Your task to perform on an android device: View the shopping cart on bestbuy. Add macbook pro 15 inch to the cart on bestbuy, then select checkout. Image 0: 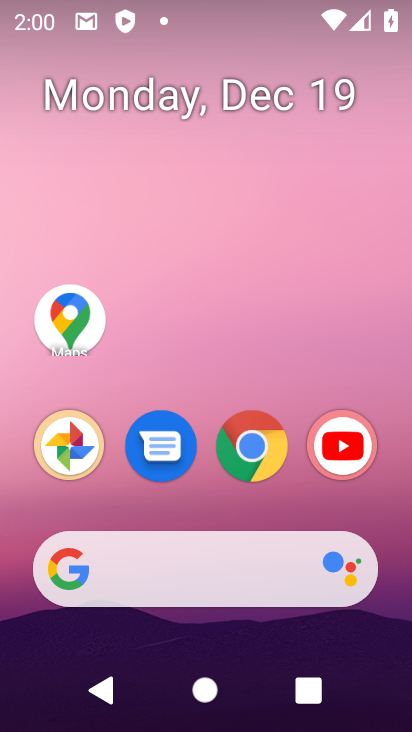
Step 0: click (241, 461)
Your task to perform on an android device: View the shopping cart on bestbuy. Add macbook pro 15 inch to the cart on bestbuy, then select checkout. Image 1: 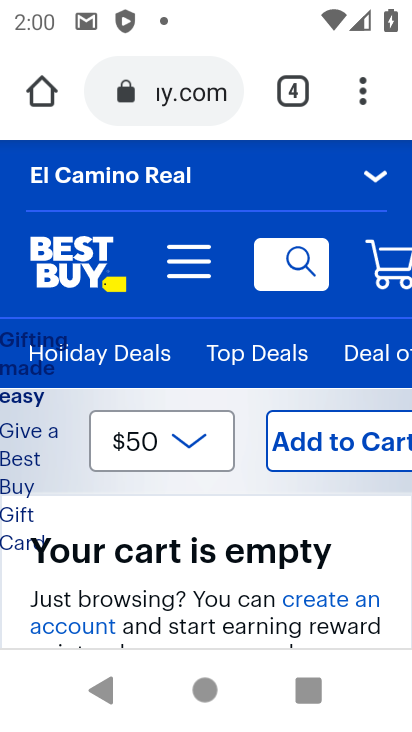
Step 1: click (278, 248)
Your task to perform on an android device: View the shopping cart on bestbuy. Add macbook pro 15 inch to the cart on bestbuy, then select checkout. Image 2: 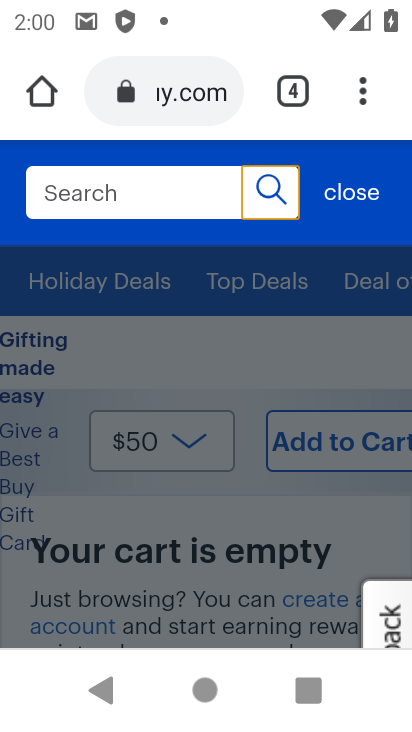
Step 2: type "macbook pro 15"
Your task to perform on an android device: View the shopping cart on bestbuy. Add macbook pro 15 inch to the cart on bestbuy, then select checkout. Image 3: 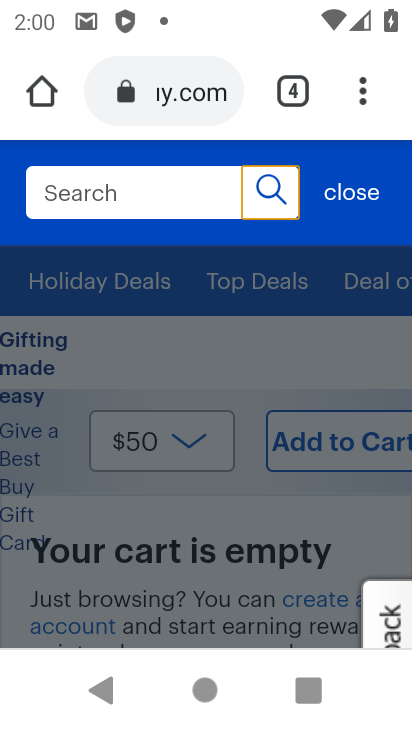
Step 3: click (182, 176)
Your task to perform on an android device: View the shopping cart on bestbuy. Add macbook pro 15 inch to the cart on bestbuy, then select checkout. Image 4: 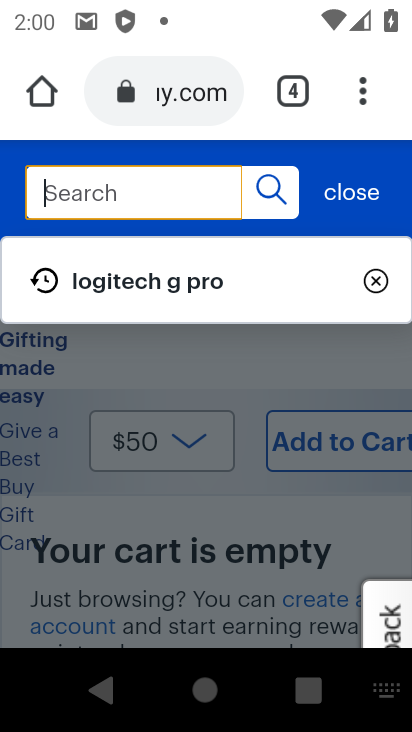
Step 4: type "macbook pro 15"
Your task to perform on an android device: View the shopping cart on bestbuy. Add macbook pro 15 inch to the cart on bestbuy, then select checkout. Image 5: 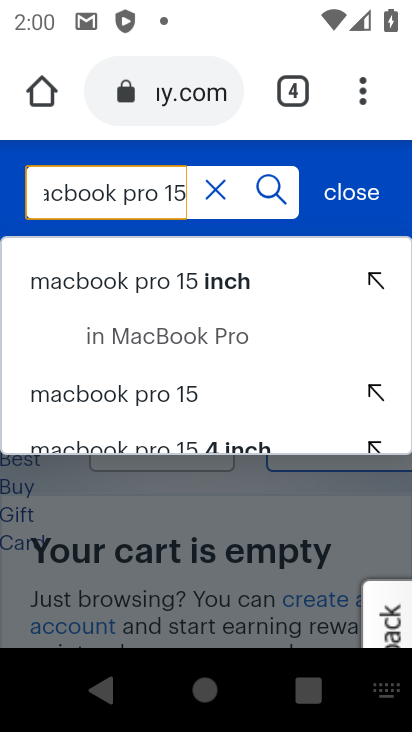
Step 5: click (241, 285)
Your task to perform on an android device: View the shopping cart on bestbuy. Add macbook pro 15 inch to the cart on bestbuy, then select checkout. Image 6: 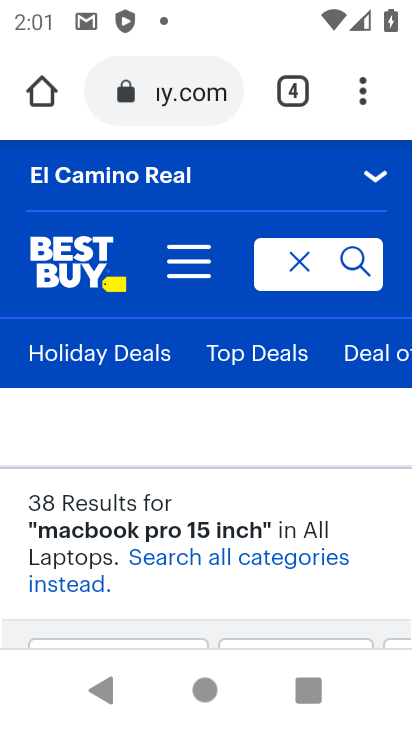
Step 6: task complete